Your task to perform on an android device: turn on javascript in the chrome app Image 0: 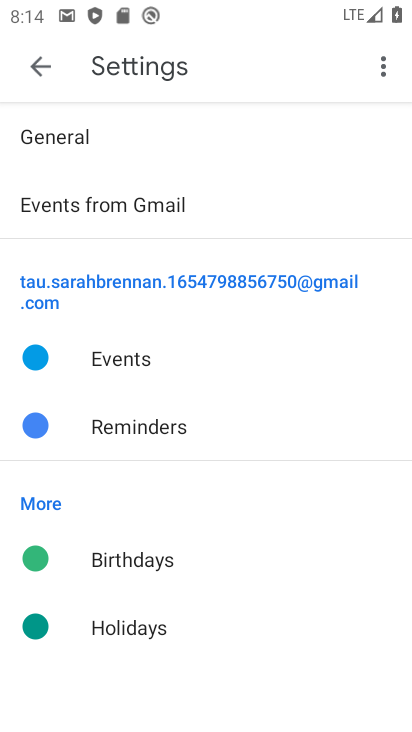
Step 0: press home button
Your task to perform on an android device: turn on javascript in the chrome app Image 1: 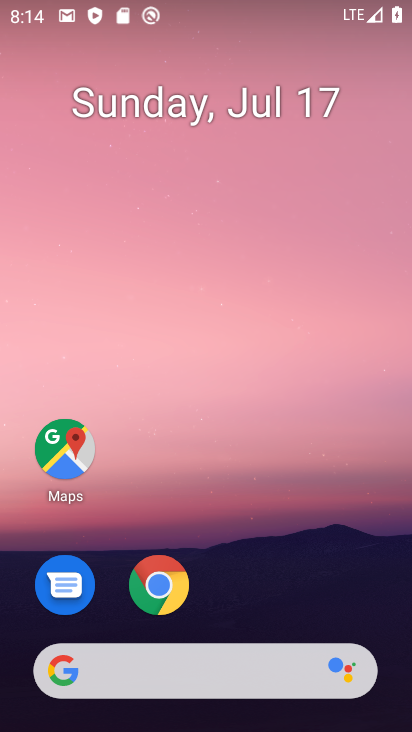
Step 1: click (158, 584)
Your task to perform on an android device: turn on javascript in the chrome app Image 2: 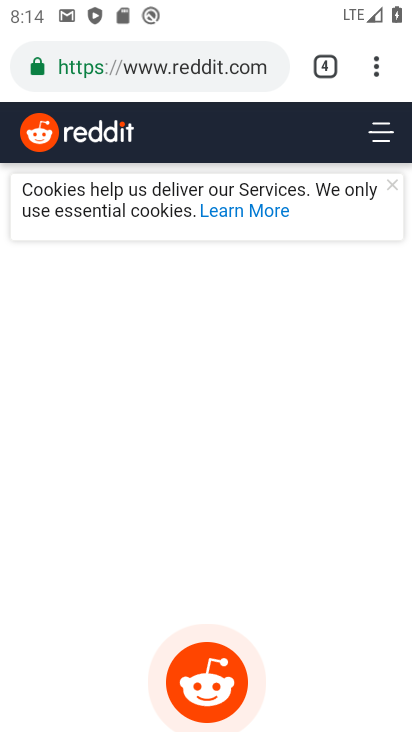
Step 2: drag from (376, 62) to (202, 570)
Your task to perform on an android device: turn on javascript in the chrome app Image 3: 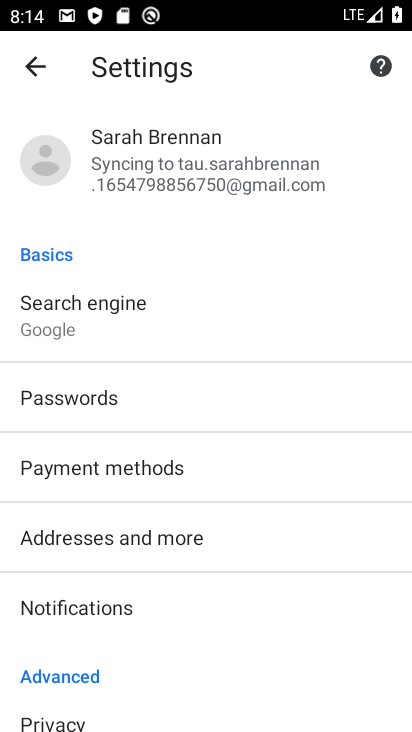
Step 3: drag from (192, 613) to (317, 118)
Your task to perform on an android device: turn on javascript in the chrome app Image 4: 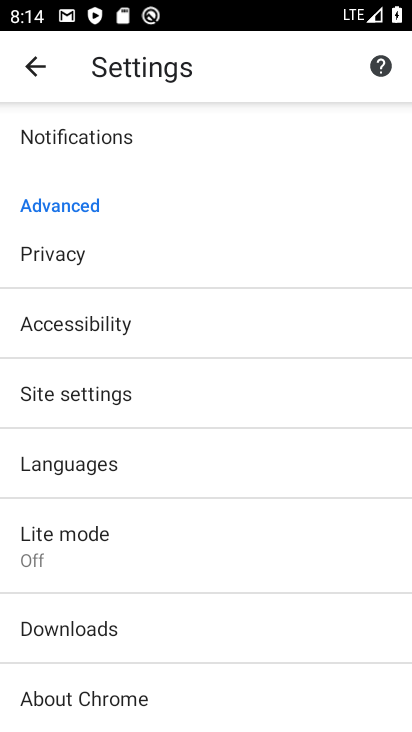
Step 4: click (95, 408)
Your task to perform on an android device: turn on javascript in the chrome app Image 5: 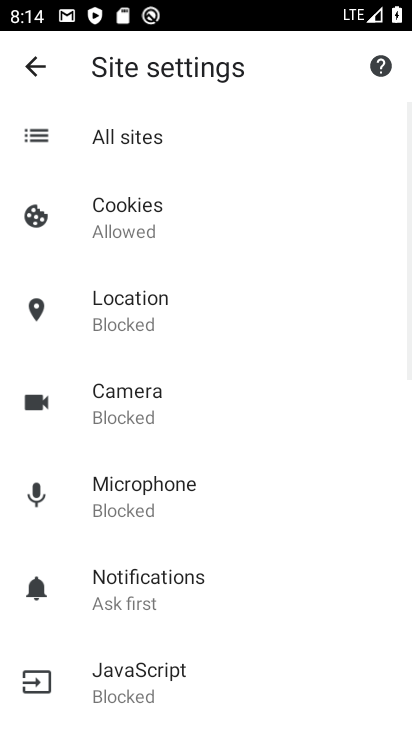
Step 5: click (136, 672)
Your task to perform on an android device: turn on javascript in the chrome app Image 6: 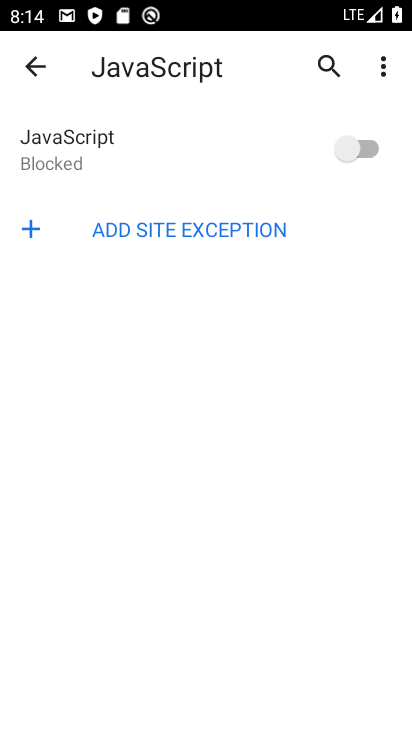
Step 6: click (367, 140)
Your task to perform on an android device: turn on javascript in the chrome app Image 7: 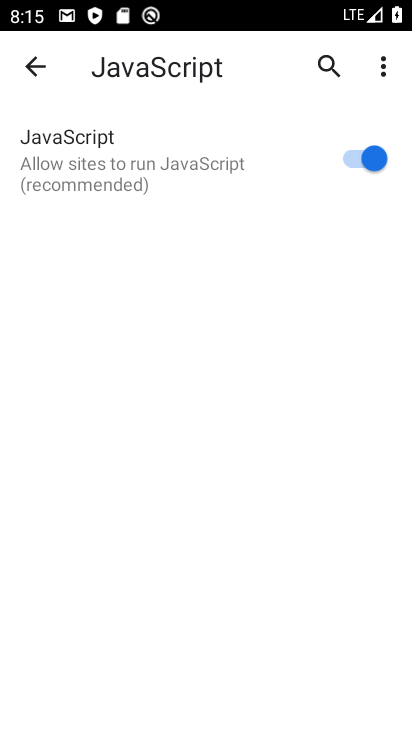
Step 7: task complete